Your task to perform on an android device: Search for Italian restaurants on Maps Image 0: 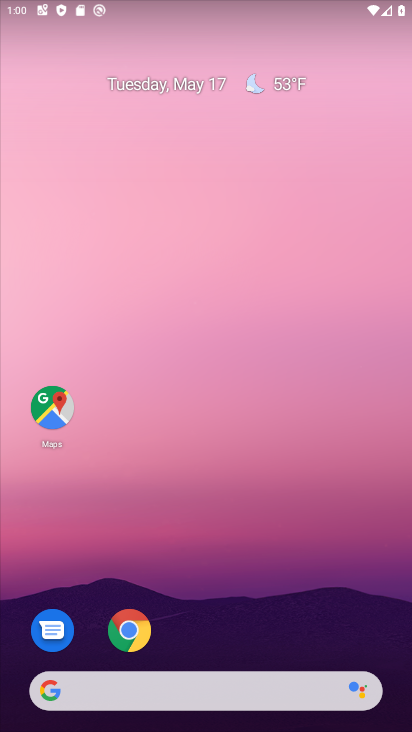
Step 0: drag from (226, 650) to (278, 311)
Your task to perform on an android device: Search for Italian restaurants on Maps Image 1: 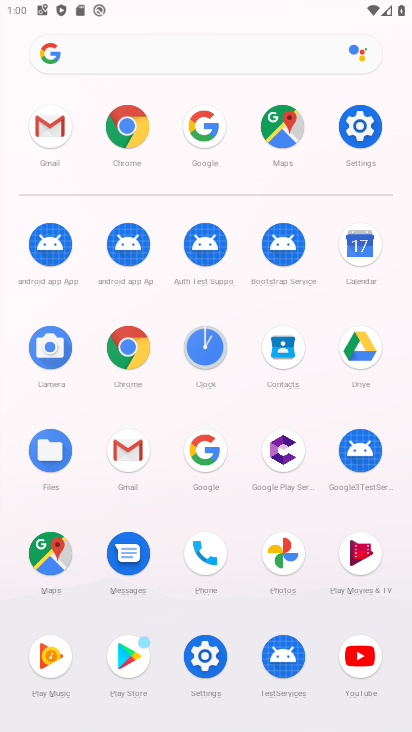
Step 1: click (58, 558)
Your task to perform on an android device: Search for Italian restaurants on Maps Image 2: 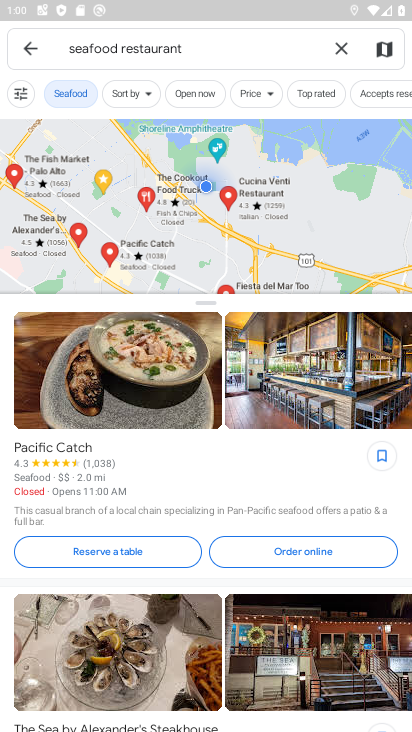
Step 2: click (347, 53)
Your task to perform on an android device: Search for Italian restaurants on Maps Image 3: 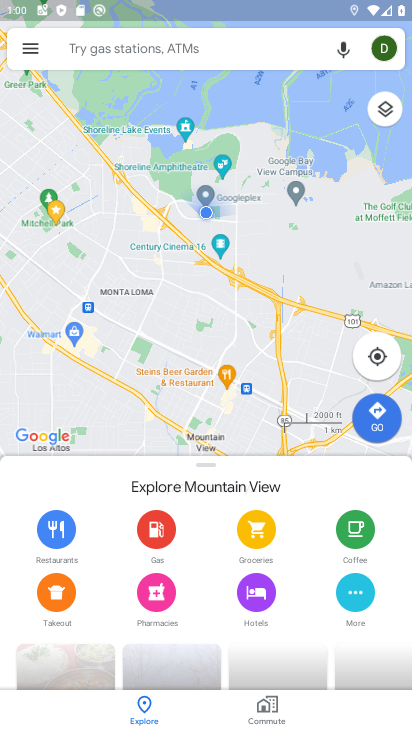
Step 3: click (210, 60)
Your task to perform on an android device: Search for Italian restaurants on Maps Image 4: 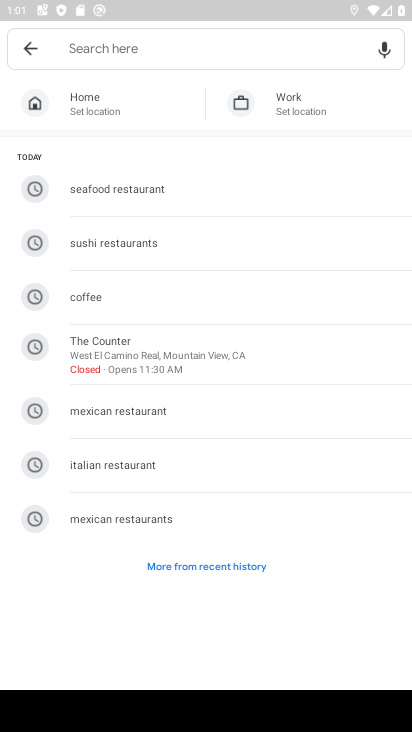
Step 4: click (142, 464)
Your task to perform on an android device: Search for Italian restaurants on Maps Image 5: 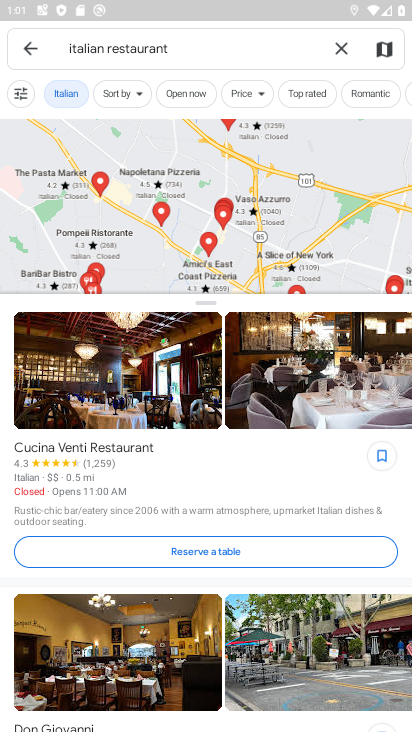
Step 5: task complete